Your task to perform on an android device: set an alarm Image 0: 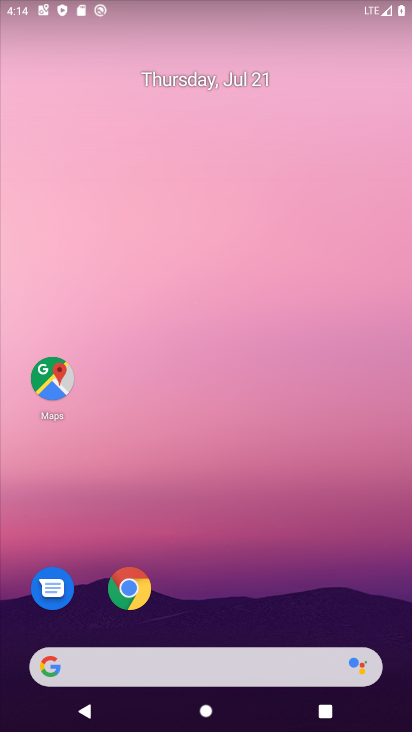
Step 0: drag from (230, 608) to (195, 63)
Your task to perform on an android device: set an alarm Image 1: 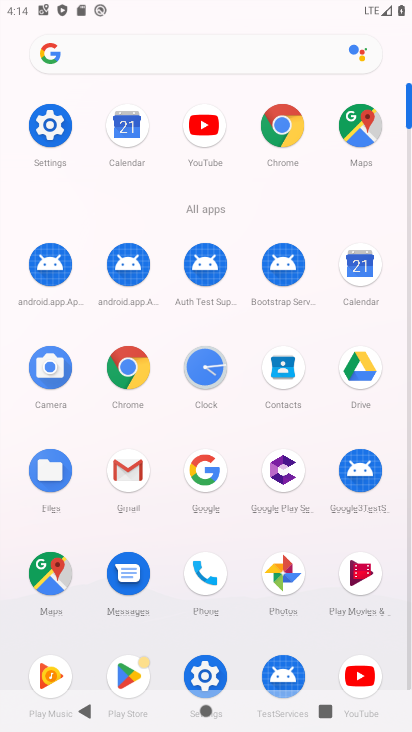
Step 1: click (193, 358)
Your task to perform on an android device: set an alarm Image 2: 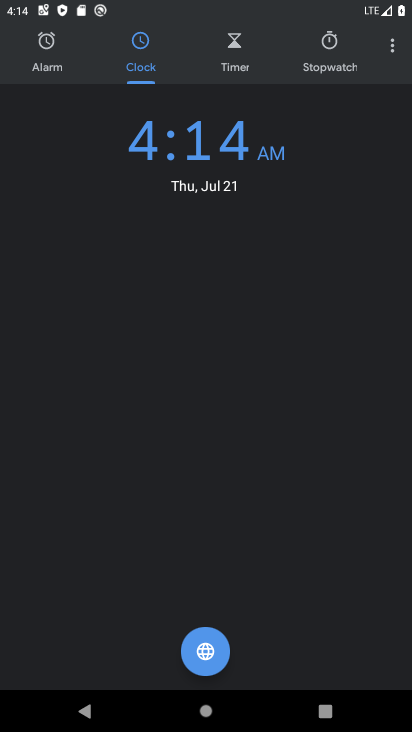
Step 2: click (58, 57)
Your task to perform on an android device: set an alarm Image 3: 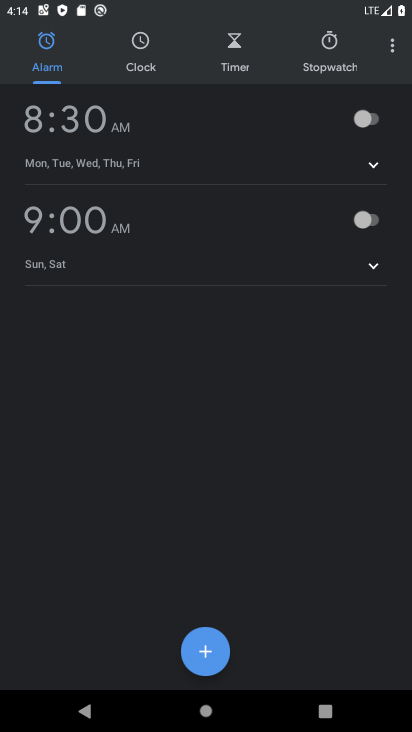
Step 3: click (191, 642)
Your task to perform on an android device: set an alarm Image 4: 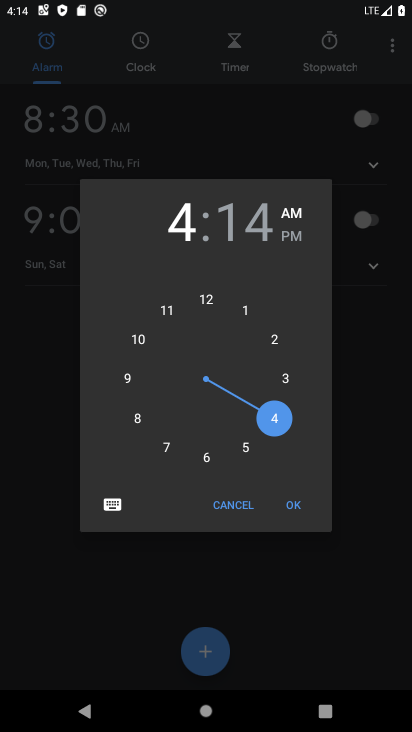
Step 4: click (206, 456)
Your task to perform on an android device: set an alarm Image 5: 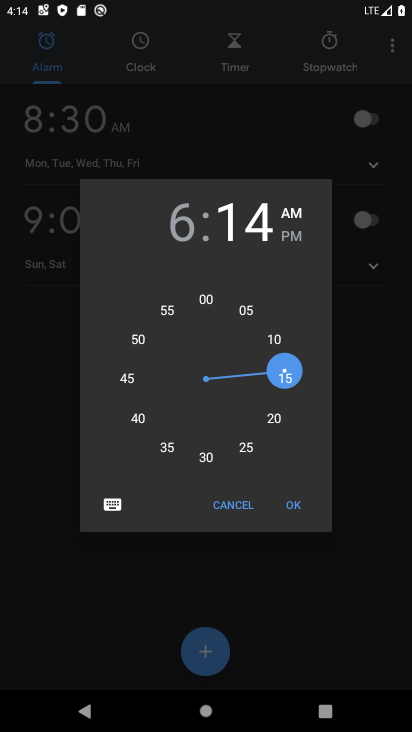
Step 5: click (206, 456)
Your task to perform on an android device: set an alarm Image 6: 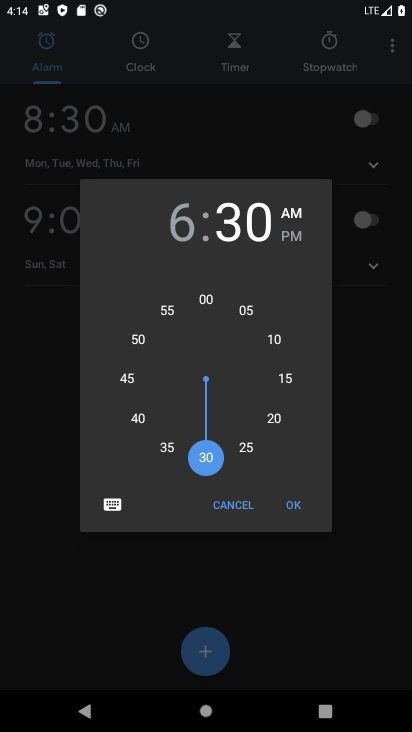
Step 6: click (292, 502)
Your task to perform on an android device: set an alarm Image 7: 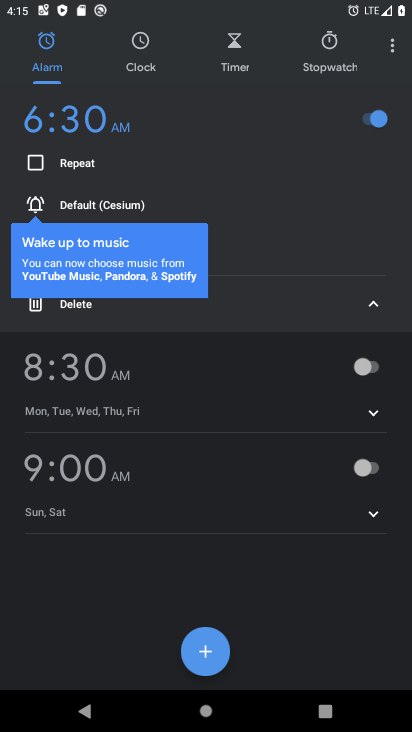
Step 7: task complete